Your task to perform on an android device: check google app version Image 0: 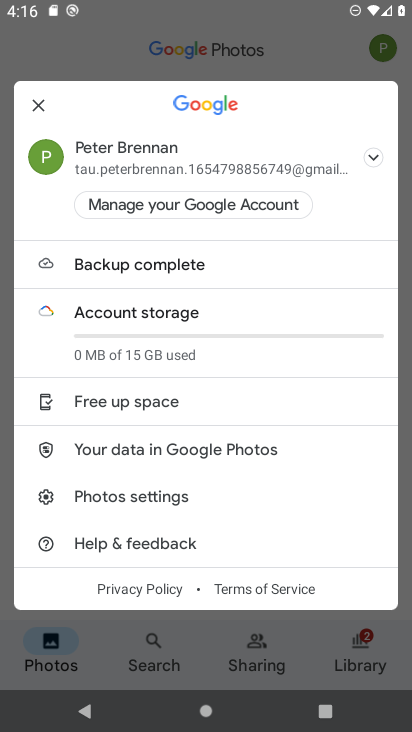
Step 0: press home button
Your task to perform on an android device: check google app version Image 1: 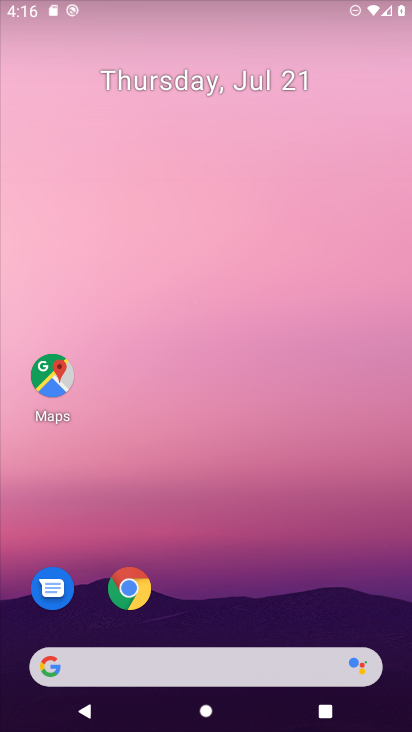
Step 1: drag from (240, 643) to (334, 96)
Your task to perform on an android device: check google app version Image 2: 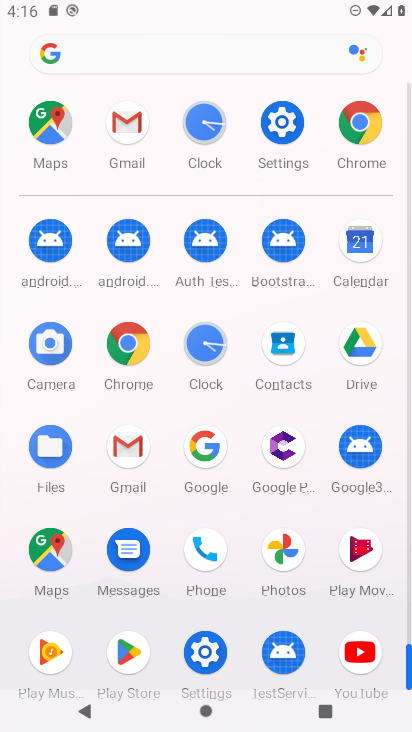
Step 2: click (207, 471)
Your task to perform on an android device: check google app version Image 3: 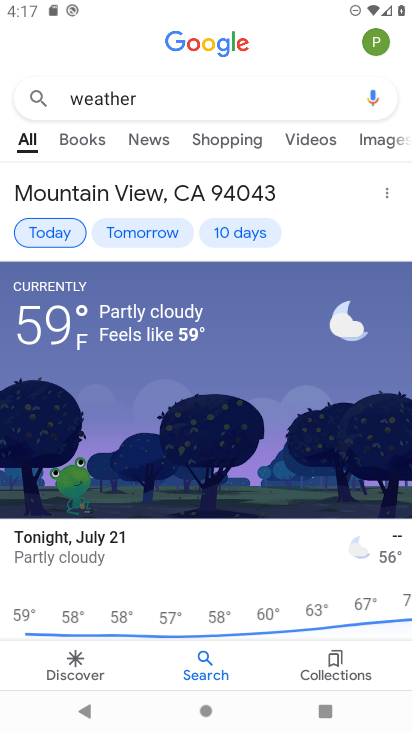
Step 3: click (378, 49)
Your task to perform on an android device: check google app version Image 4: 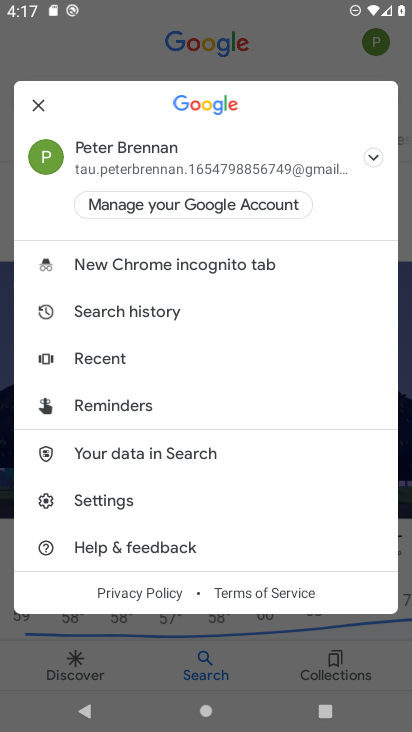
Step 4: click (137, 503)
Your task to perform on an android device: check google app version Image 5: 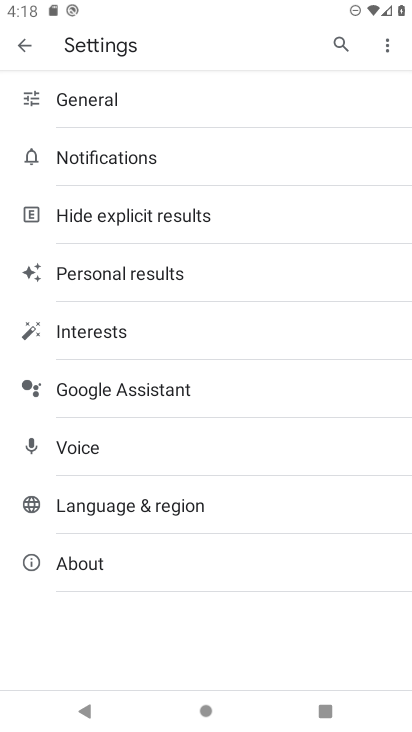
Step 5: click (138, 563)
Your task to perform on an android device: check google app version Image 6: 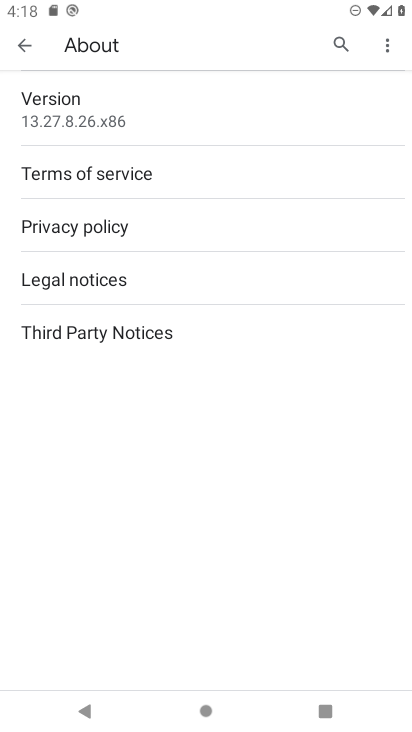
Step 6: task complete